Your task to perform on an android device: change the clock display to digital Image 0: 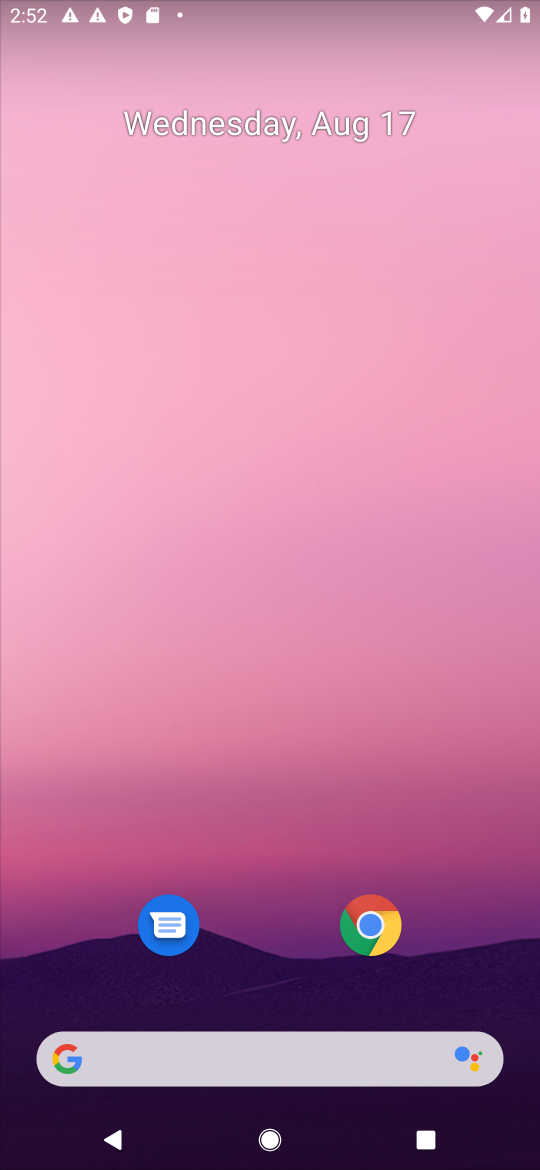
Step 0: drag from (85, 428) to (75, 124)
Your task to perform on an android device: change the clock display to digital Image 1: 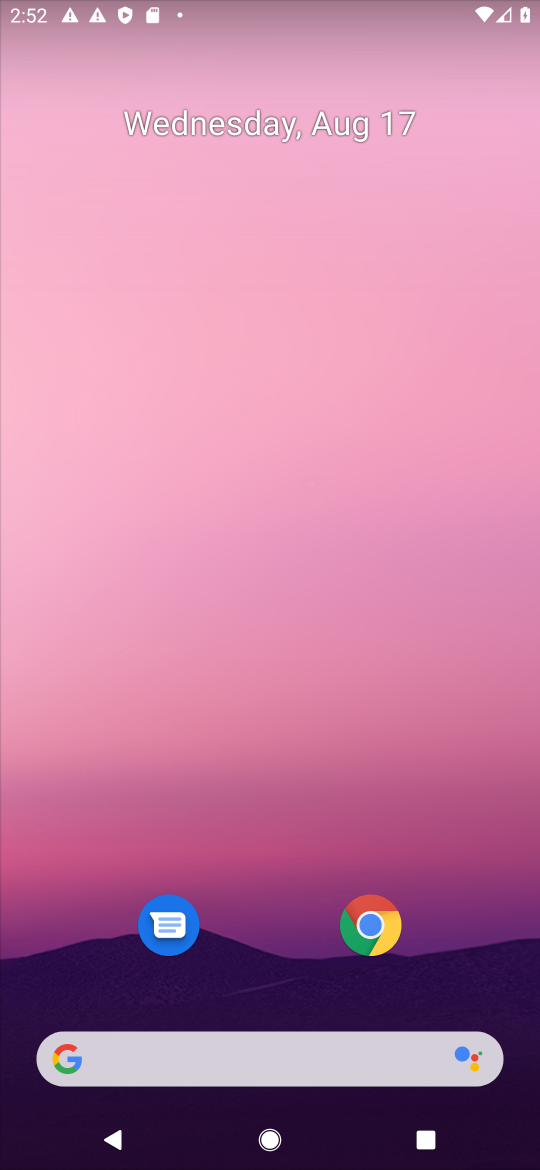
Step 1: drag from (268, 1047) to (246, 344)
Your task to perform on an android device: change the clock display to digital Image 2: 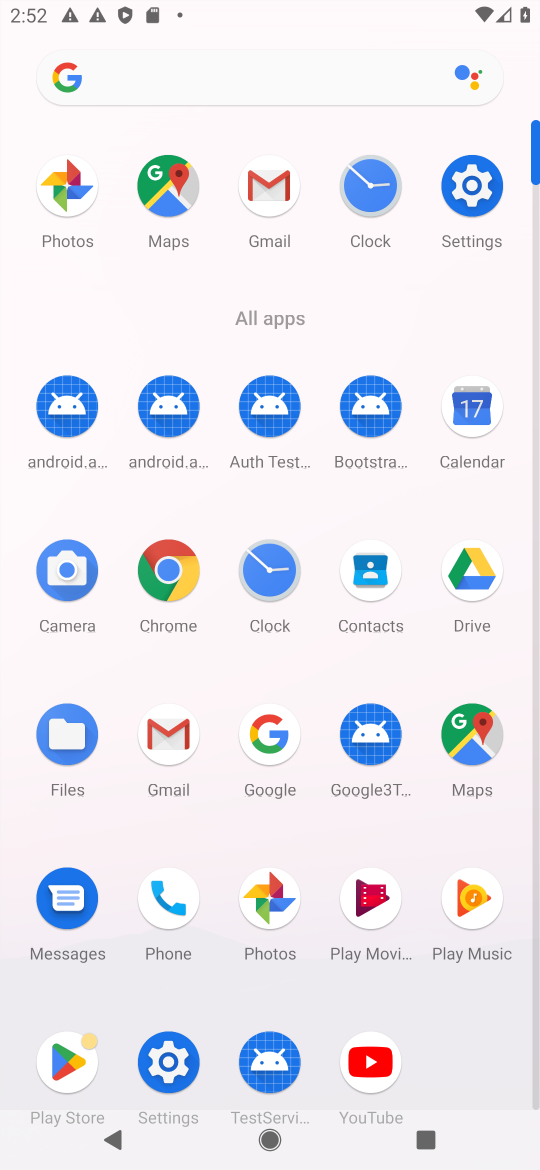
Step 2: click (352, 197)
Your task to perform on an android device: change the clock display to digital Image 3: 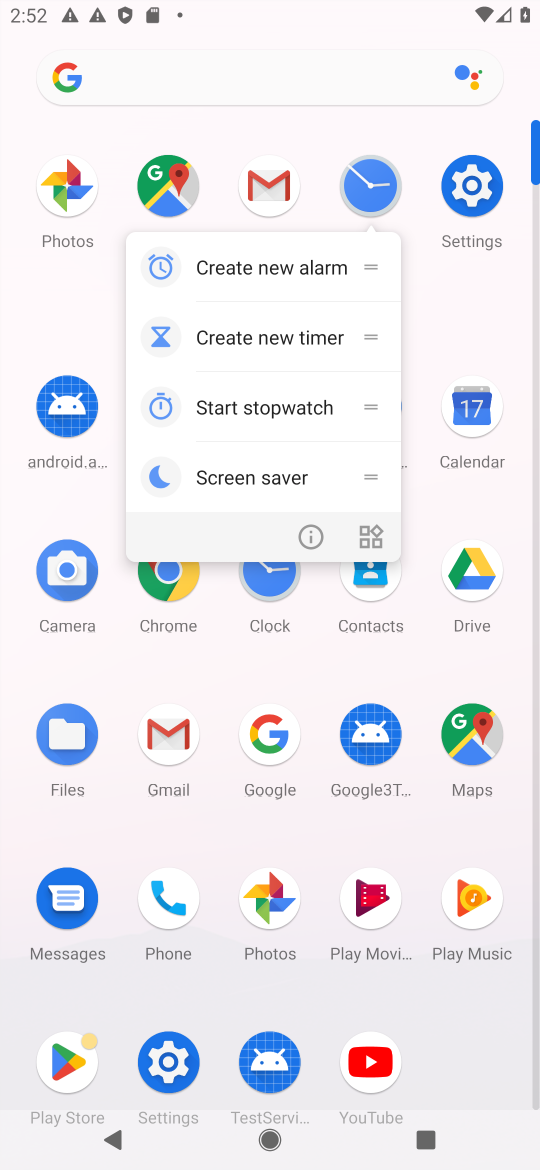
Step 3: click (352, 197)
Your task to perform on an android device: change the clock display to digital Image 4: 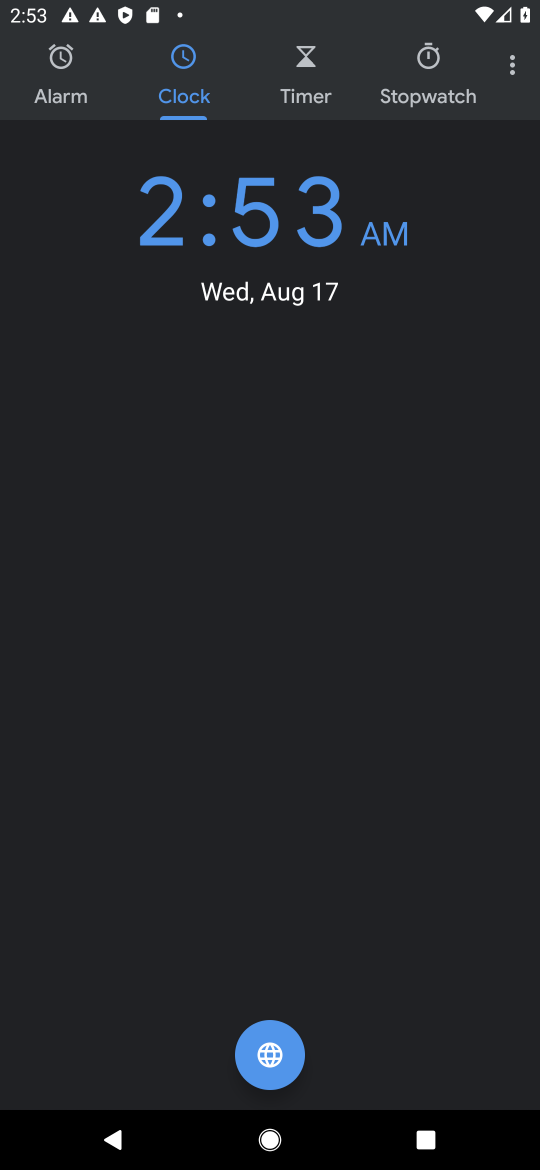
Step 4: click (524, 72)
Your task to perform on an android device: change the clock display to digital Image 5: 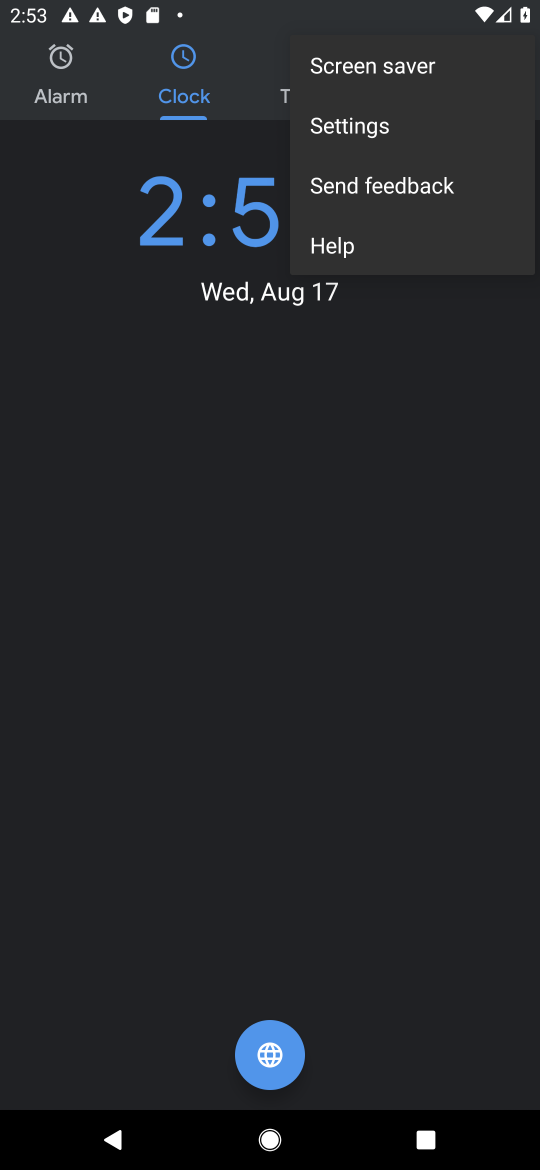
Step 5: click (415, 137)
Your task to perform on an android device: change the clock display to digital Image 6: 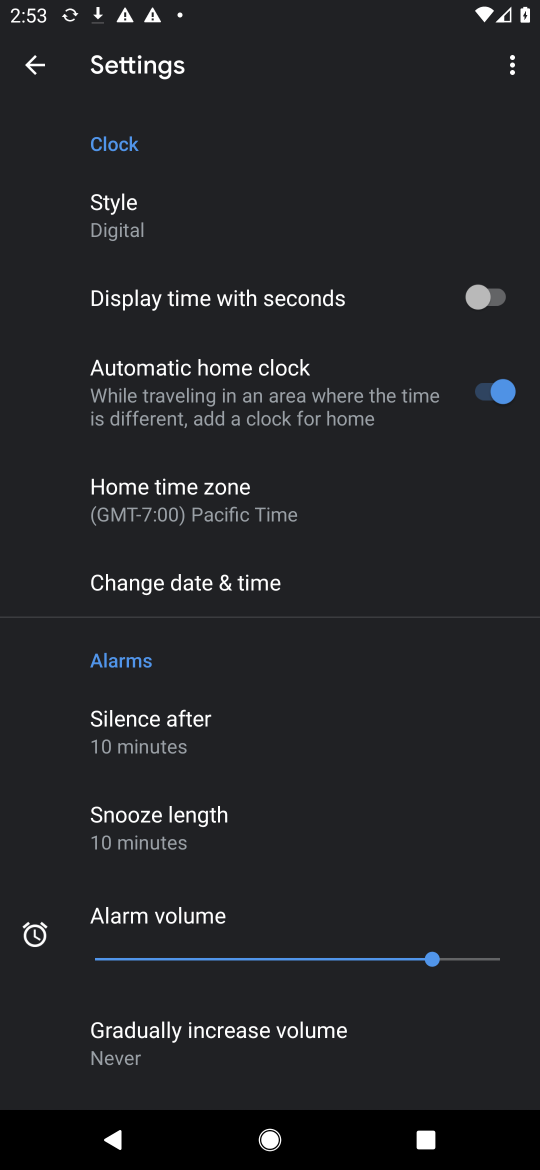
Step 6: click (199, 225)
Your task to perform on an android device: change the clock display to digital Image 7: 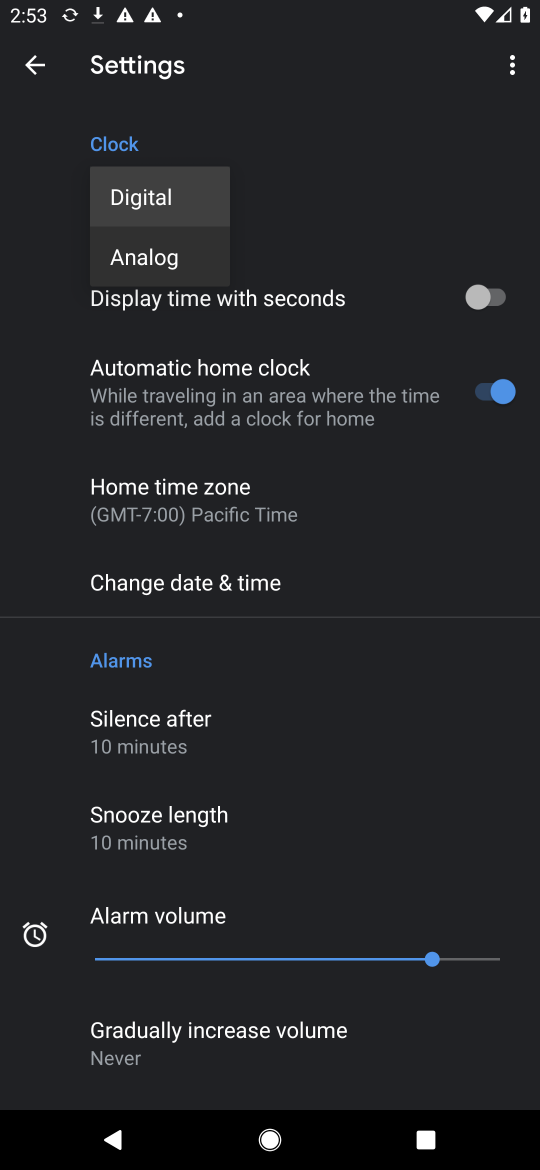
Step 7: click (154, 193)
Your task to perform on an android device: change the clock display to digital Image 8: 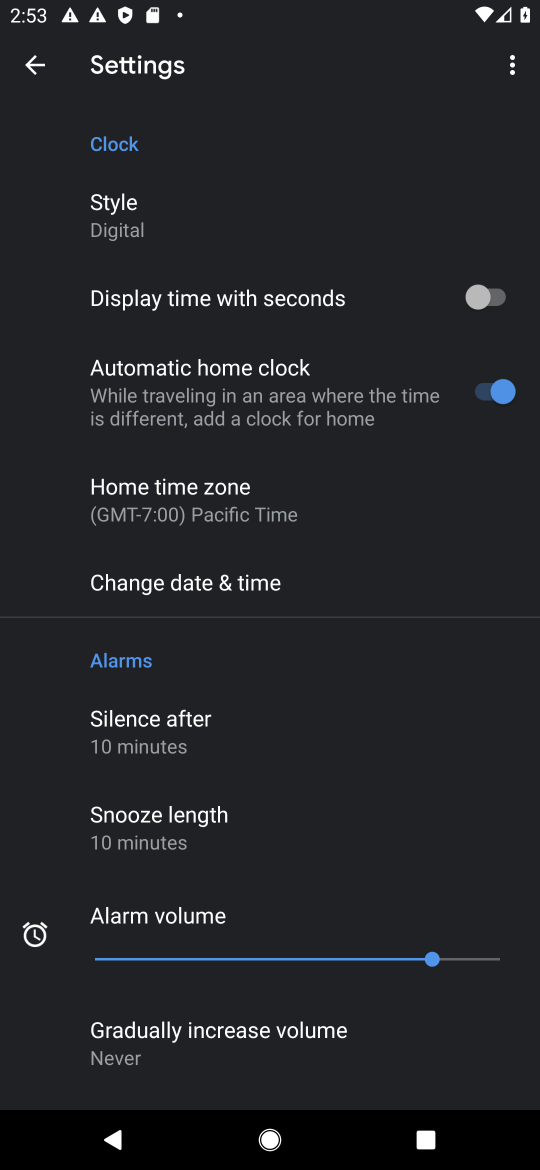
Step 8: task complete